Your task to perform on an android device: open sync settings in chrome Image 0: 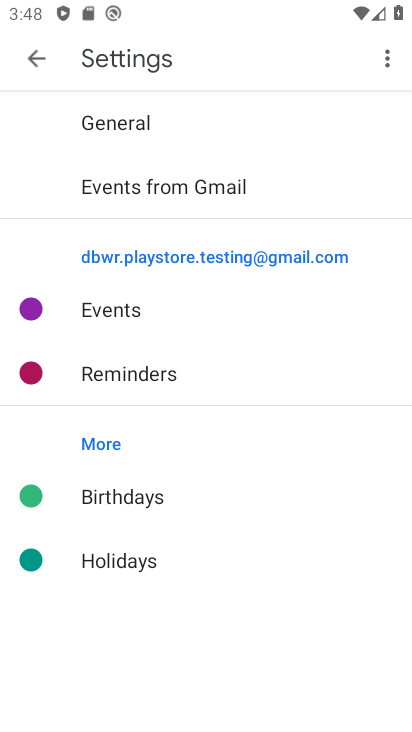
Step 0: press home button
Your task to perform on an android device: open sync settings in chrome Image 1: 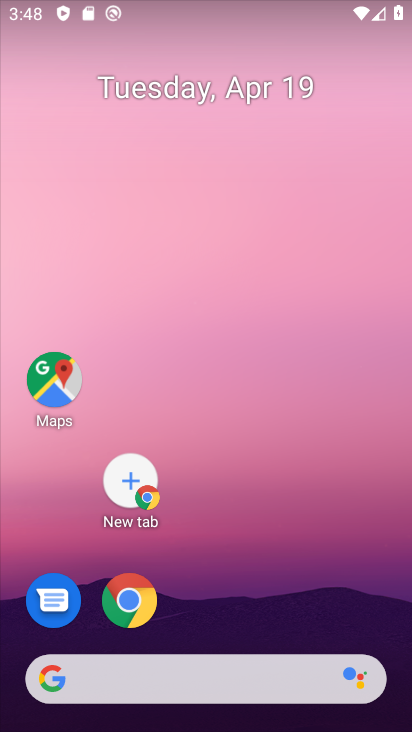
Step 1: click (118, 593)
Your task to perform on an android device: open sync settings in chrome Image 2: 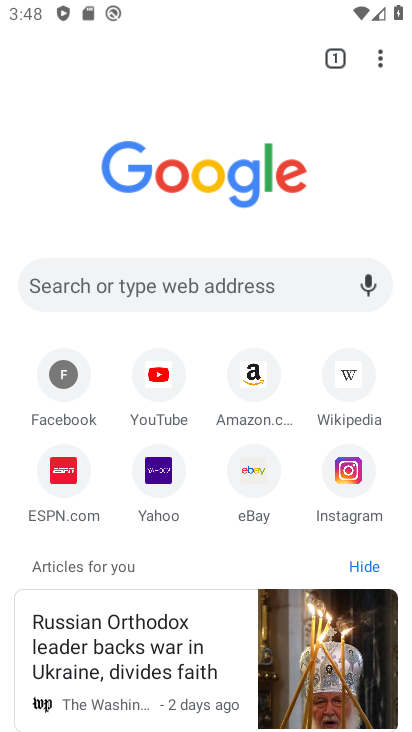
Step 2: click (382, 71)
Your task to perform on an android device: open sync settings in chrome Image 3: 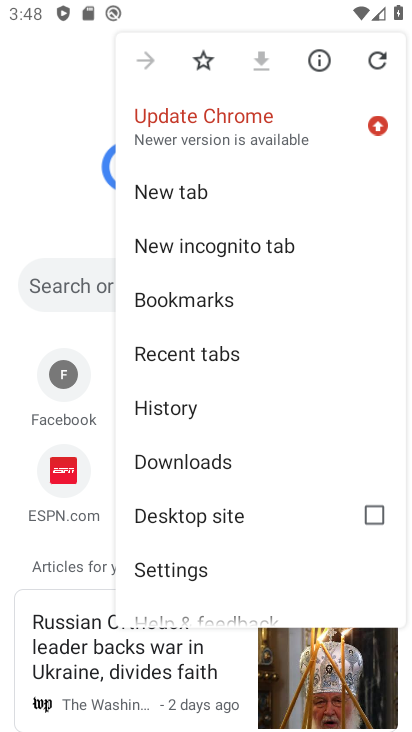
Step 3: click (172, 566)
Your task to perform on an android device: open sync settings in chrome Image 4: 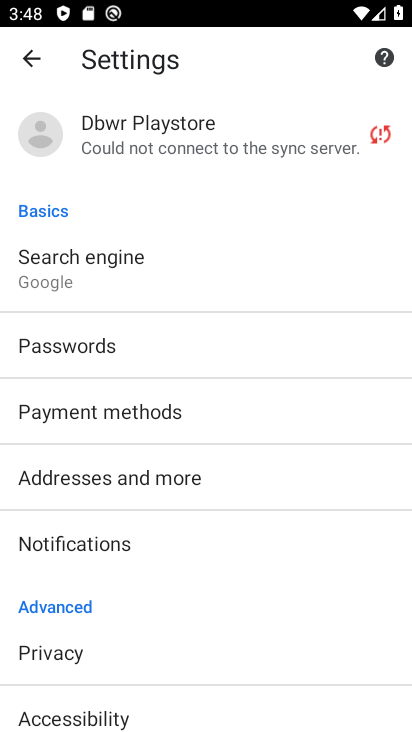
Step 4: click (232, 145)
Your task to perform on an android device: open sync settings in chrome Image 5: 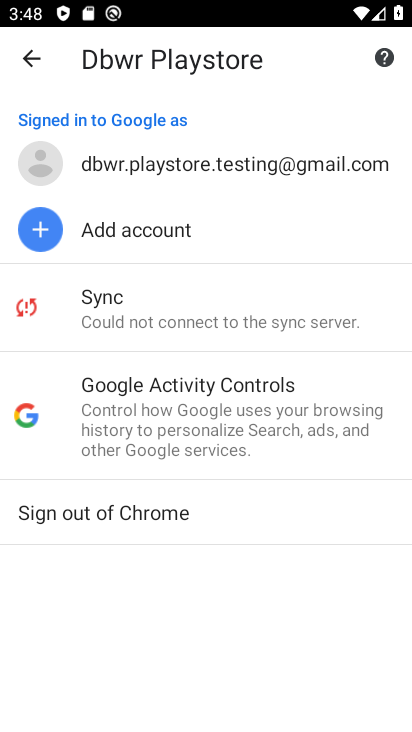
Step 5: click (136, 299)
Your task to perform on an android device: open sync settings in chrome Image 6: 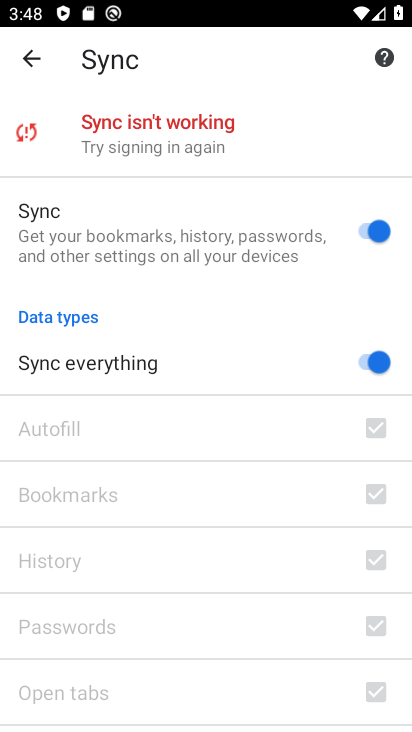
Step 6: task complete